Your task to perform on an android device: turn off data saver in the chrome app Image 0: 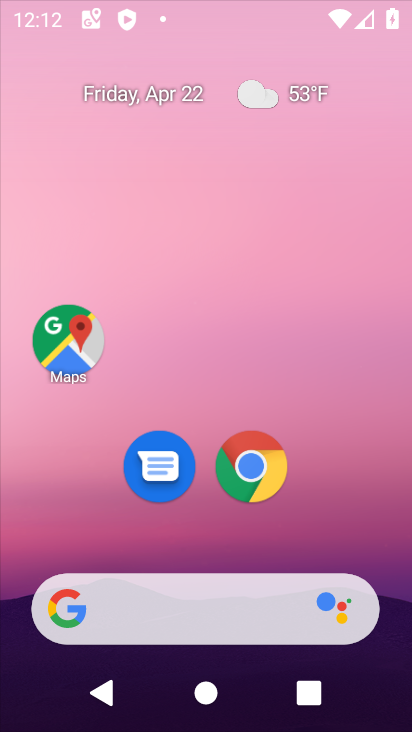
Step 0: drag from (347, 474) to (255, 22)
Your task to perform on an android device: turn off data saver in the chrome app Image 1: 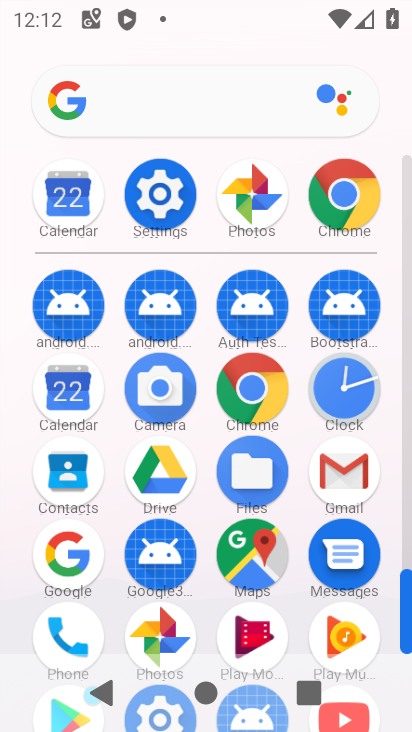
Step 1: drag from (12, 558) to (23, 296)
Your task to perform on an android device: turn off data saver in the chrome app Image 2: 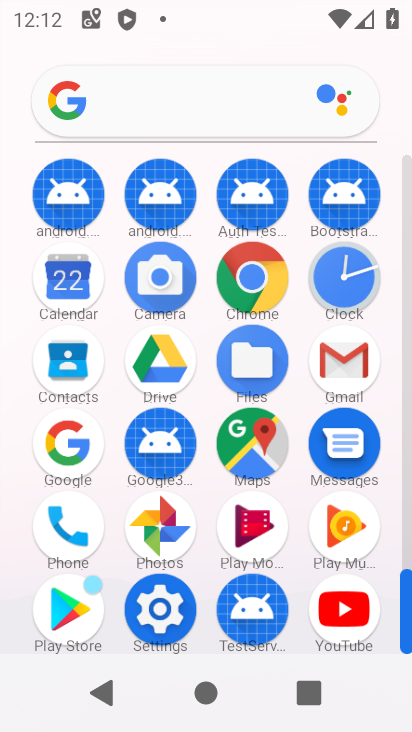
Step 2: click (255, 268)
Your task to perform on an android device: turn off data saver in the chrome app Image 3: 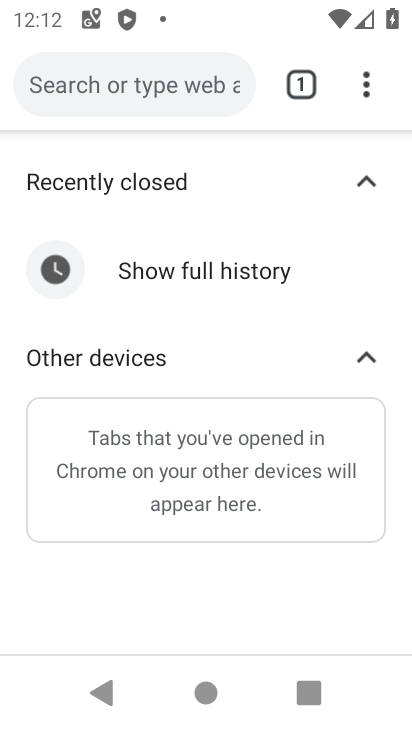
Step 3: click (155, 77)
Your task to perform on an android device: turn off data saver in the chrome app Image 4: 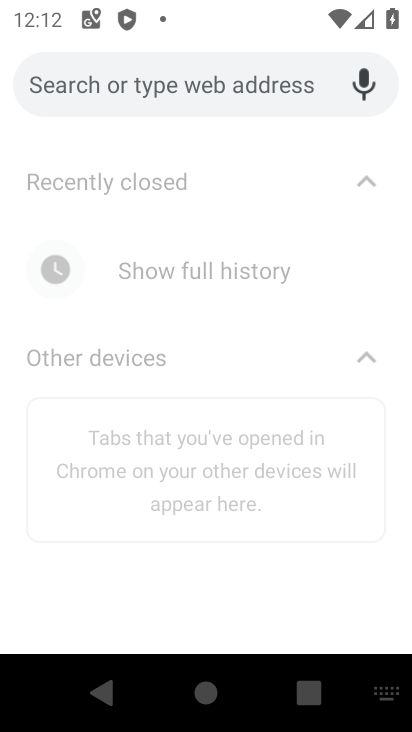
Step 4: click (99, 697)
Your task to perform on an android device: turn off data saver in the chrome app Image 5: 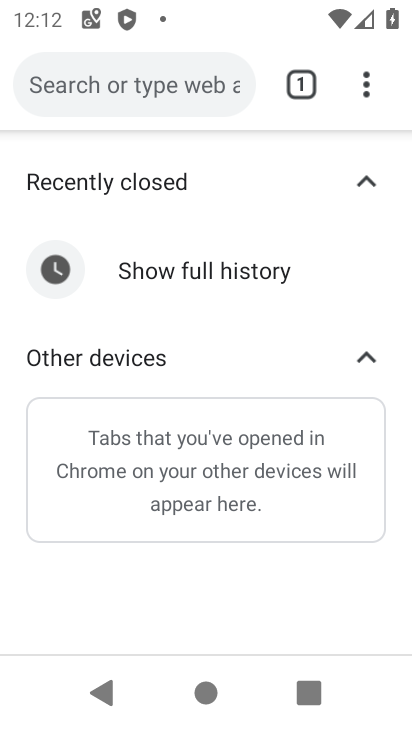
Step 5: drag from (368, 87) to (128, 493)
Your task to perform on an android device: turn off data saver in the chrome app Image 6: 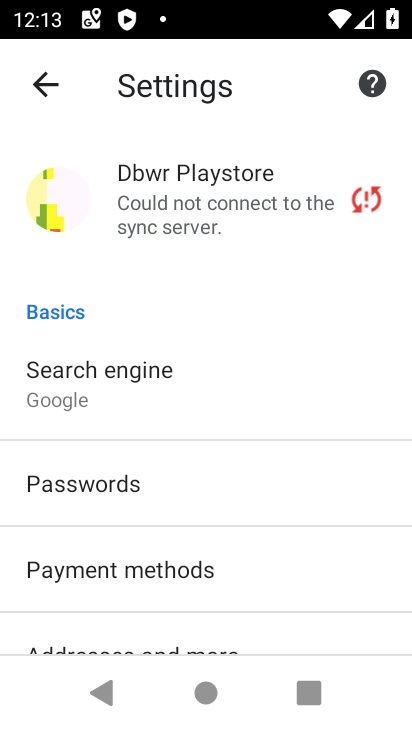
Step 6: drag from (185, 563) to (203, 246)
Your task to perform on an android device: turn off data saver in the chrome app Image 7: 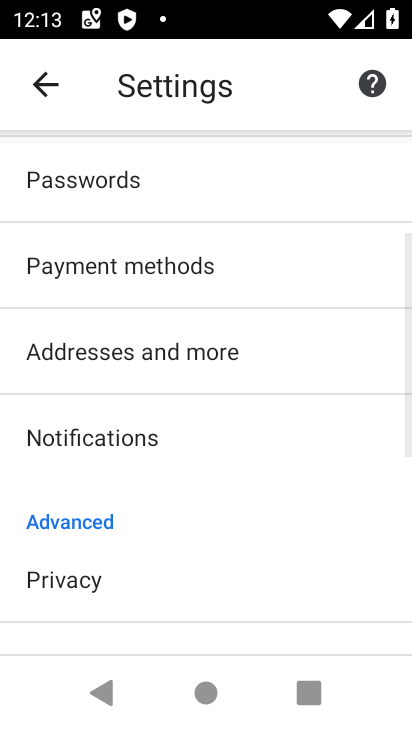
Step 7: drag from (202, 547) to (189, 329)
Your task to perform on an android device: turn off data saver in the chrome app Image 8: 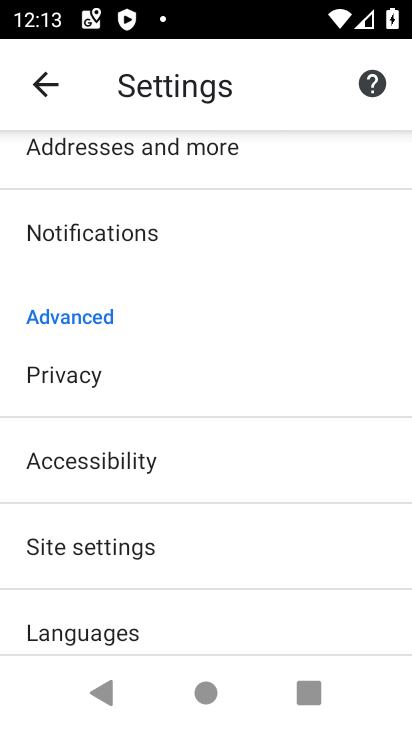
Step 8: drag from (195, 561) to (181, 301)
Your task to perform on an android device: turn off data saver in the chrome app Image 9: 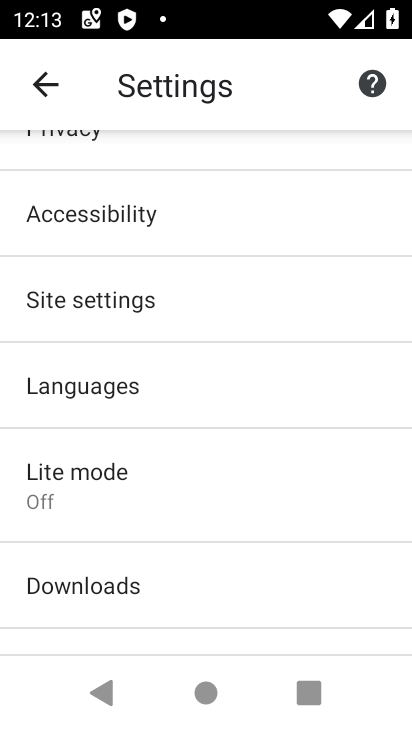
Step 9: click (157, 474)
Your task to perform on an android device: turn off data saver in the chrome app Image 10: 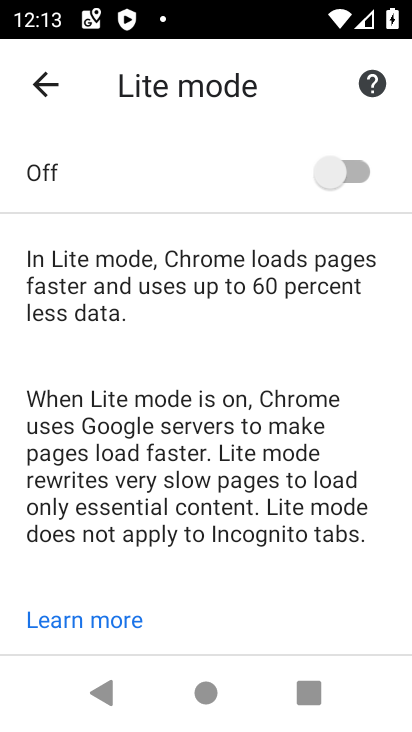
Step 10: task complete